Your task to perform on an android device: open app "Mercado Libre" Image 0: 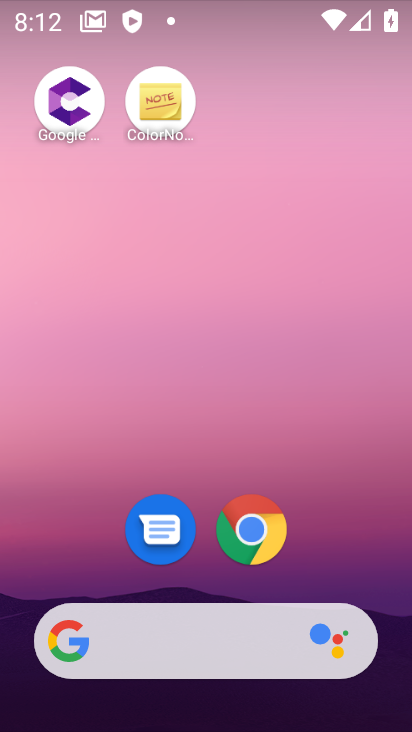
Step 0: drag from (344, 452) to (309, 10)
Your task to perform on an android device: open app "Mercado Libre" Image 1: 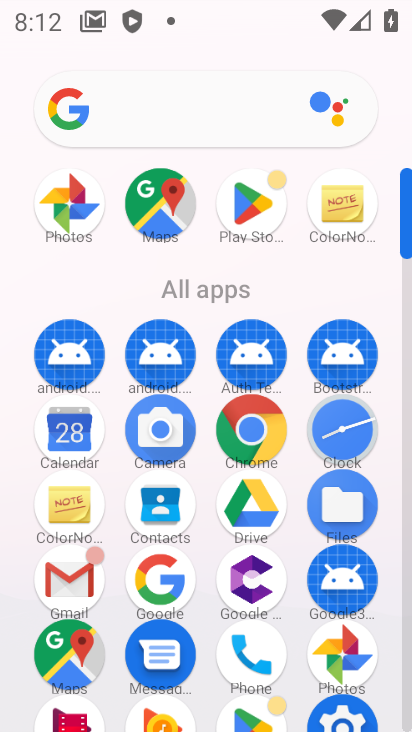
Step 1: click (242, 216)
Your task to perform on an android device: open app "Mercado Libre" Image 2: 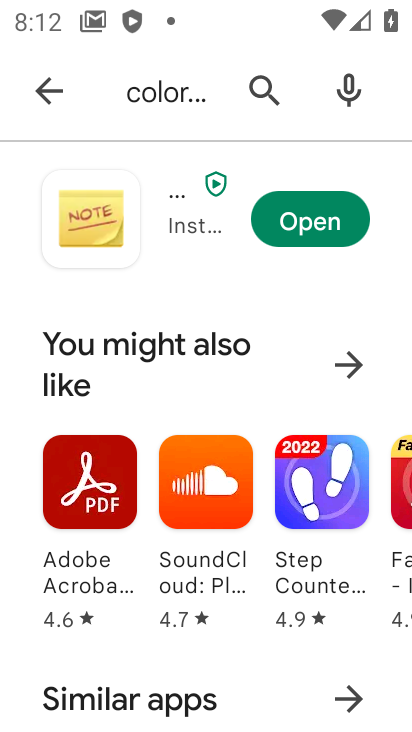
Step 2: click (257, 93)
Your task to perform on an android device: open app "Mercado Libre" Image 3: 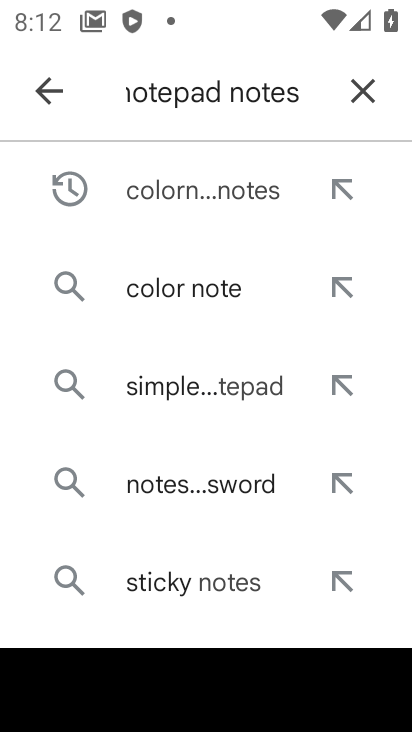
Step 3: click (354, 87)
Your task to perform on an android device: open app "Mercado Libre" Image 4: 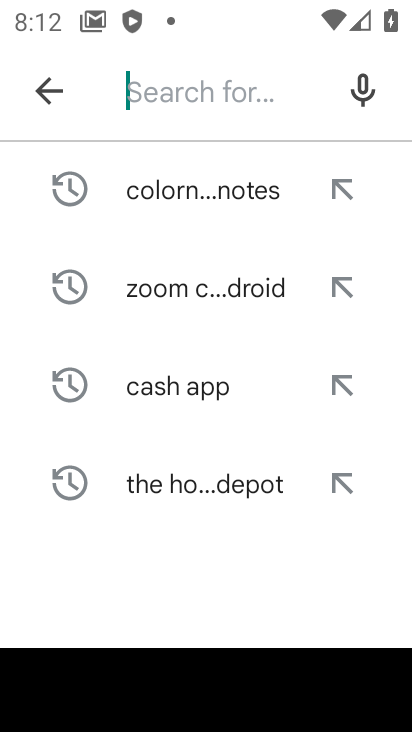
Step 4: type "Mercado Libre"
Your task to perform on an android device: open app "Mercado Libre" Image 5: 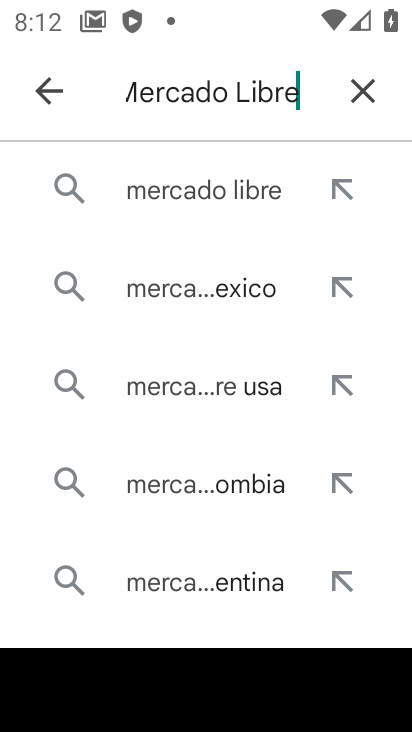
Step 5: click (190, 196)
Your task to perform on an android device: open app "Mercado Libre" Image 6: 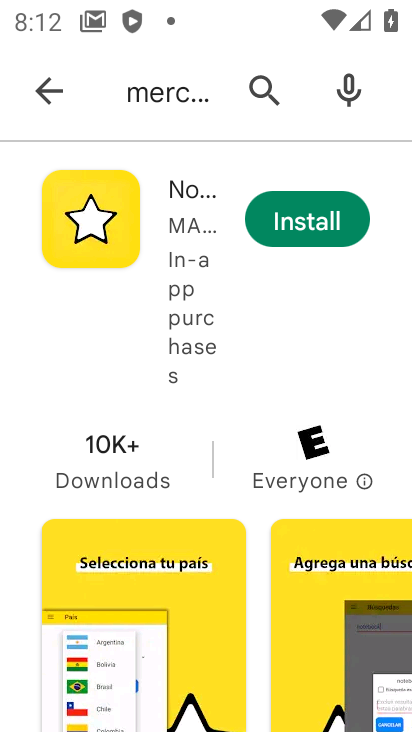
Step 6: task complete